Your task to perform on an android device: When is my next meeting? Image 0: 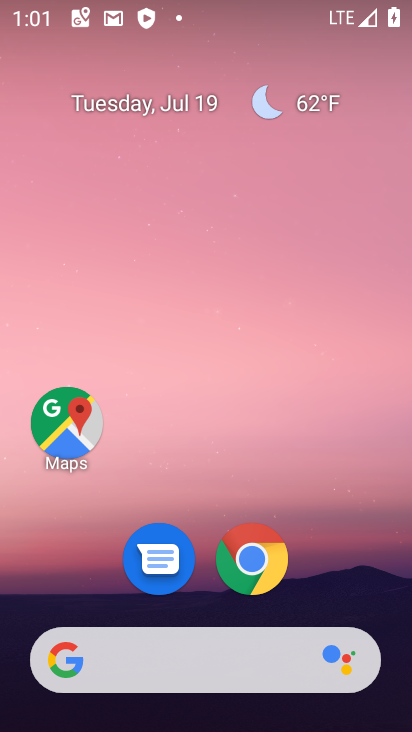
Step 0: drag from (249, 604) to (300, 171)
Your task to perform on an android device: When is my next meeting? Image 1: 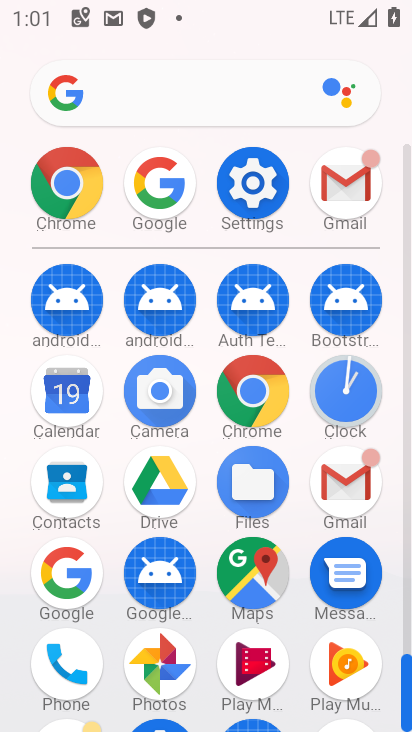
Step 1: click (66, 396)
Your task to perform on an android device: When is my next meeting? Image 2: 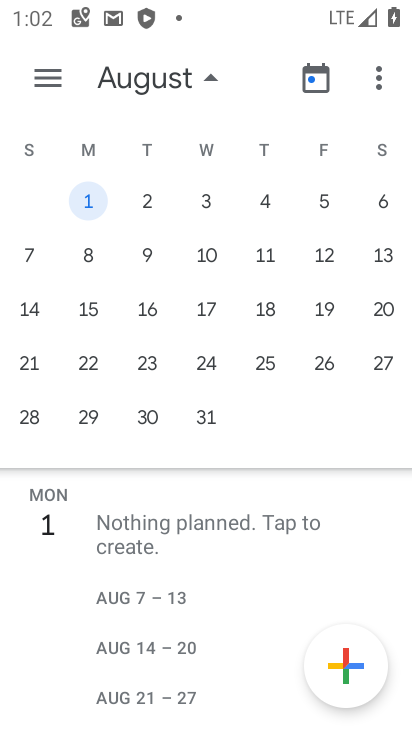
Step 2: drag from (106, 280) to (396, 177)
Your task to perform on an android device: When is my next meeting? Image 3: 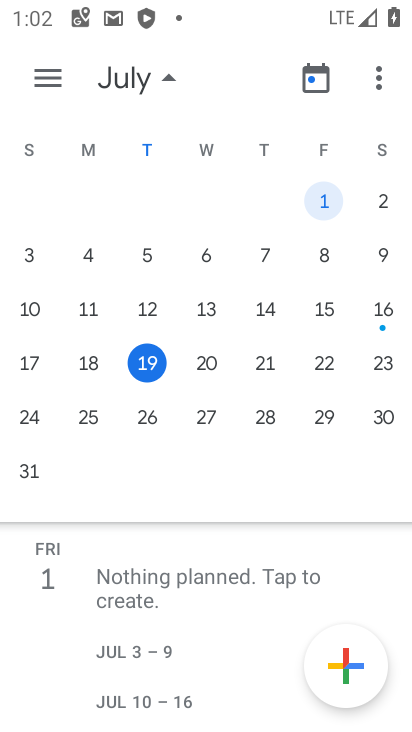
Step 3: click (63, 82)
Your task to perform on an android device: When is my next meeting? Image 4: 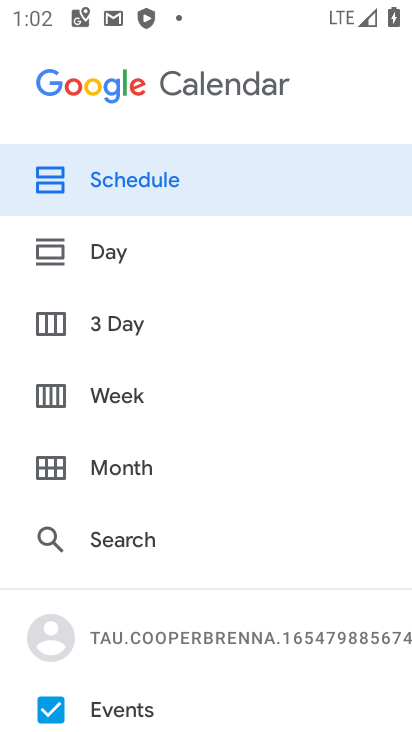
Step 4: task complete